Your task to perform on an android device: delete a single message in the gmail app Image 0: 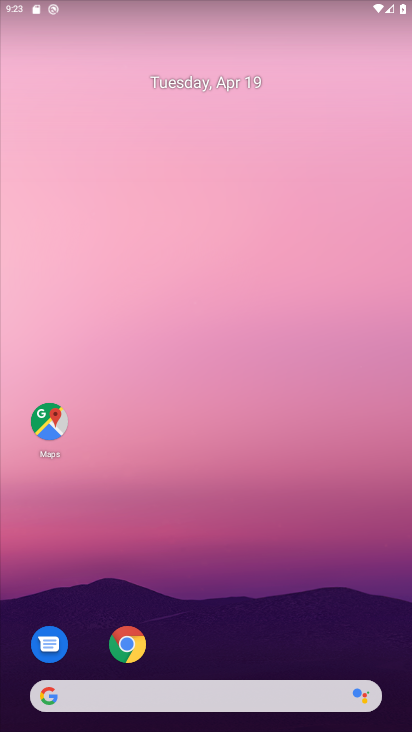
Step 0: drag from (193, 651) to (225, 128)
Your task to perform on an android device: delete a single message in the gmail app Image 1: 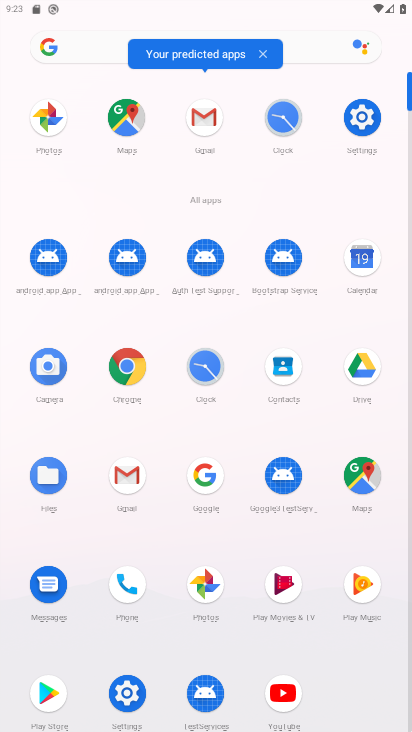
Step 1: click (119, 476)
Your task to perform on an android device: delete a single message in the gmail app Image 2: 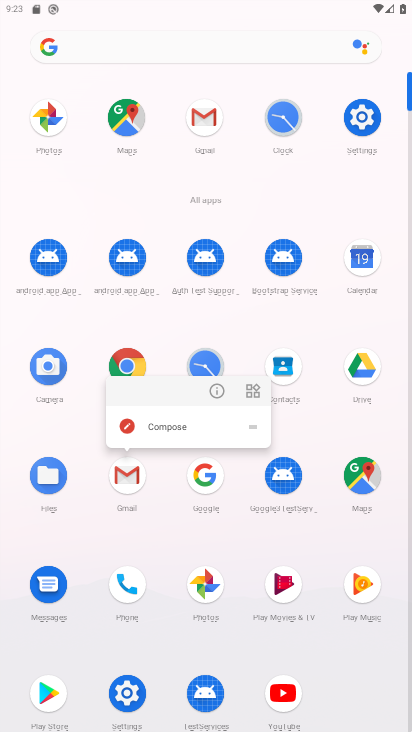
Step 2: click (119, 475)
Your task to perform on an android device: delete a single message in the gmail app Image 3: 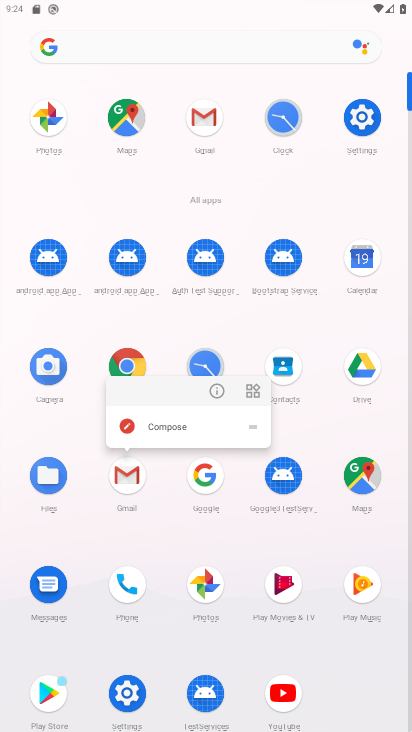
Step 3: click (124, 477)
Your task to perform on an android device: delete a single message in the gmail app Image 4: 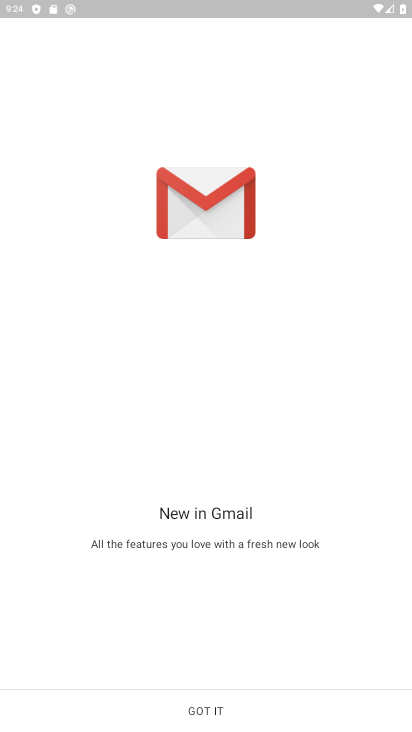
Step 4: click (201, 716)
Your task to perform on an android device: delete a single message in the gmail app Image 5: 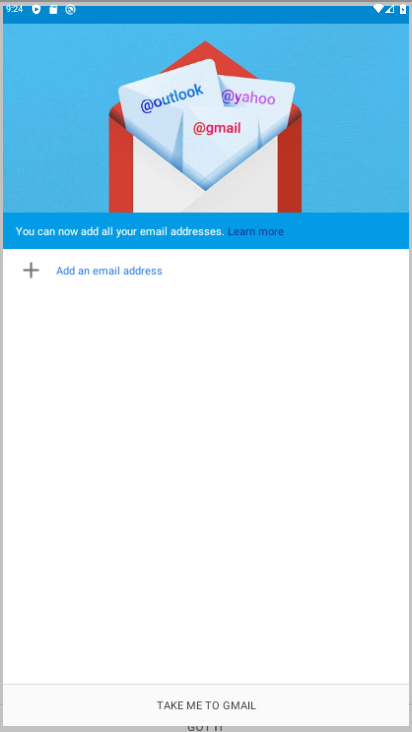
Step 5: click (202, 719)
Your task to perform on an android device: delete a single message in the gmail app Image 6: 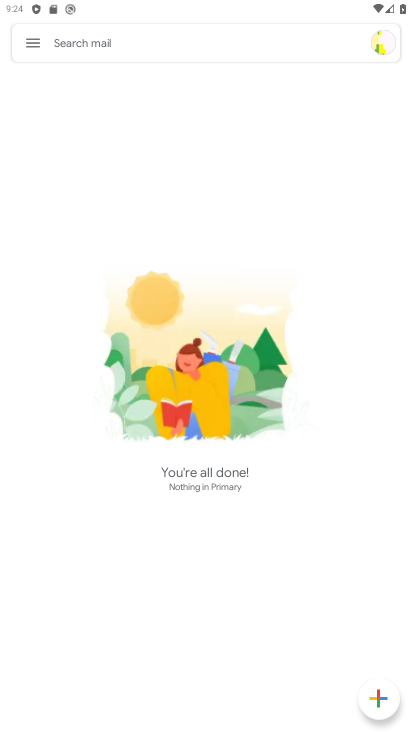
Step 6: task complete